Your task to perform on an android device: change alarm snooze length Image 0: 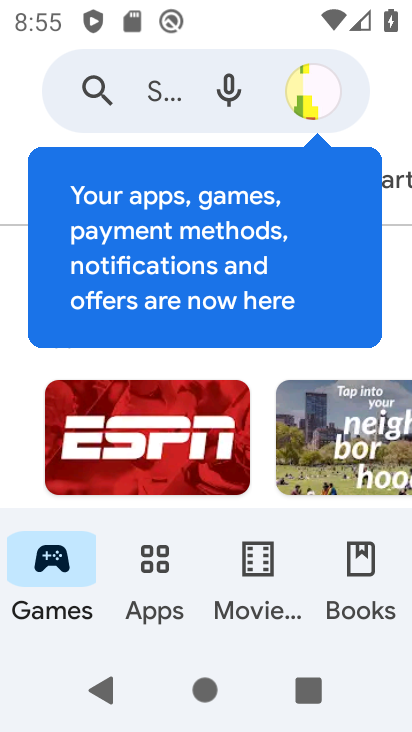
Step 0: press home button
Your task to perform on an android device: change alarm snooze length Image 1: 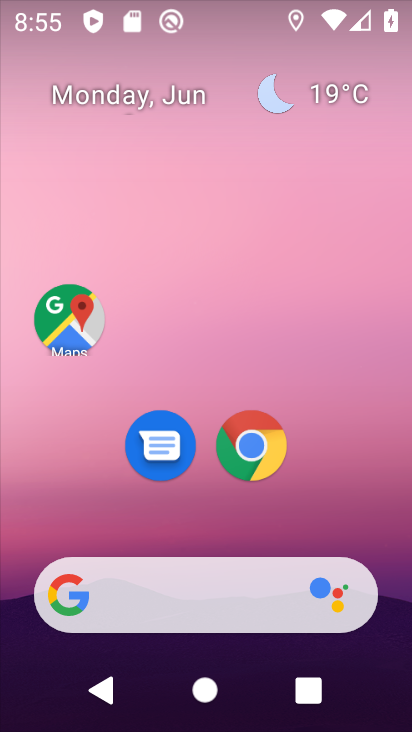
Step 1: drag from (193, 539) to (210, 6)
Your task to perform on an android device: change alarm snooze length Image 2: 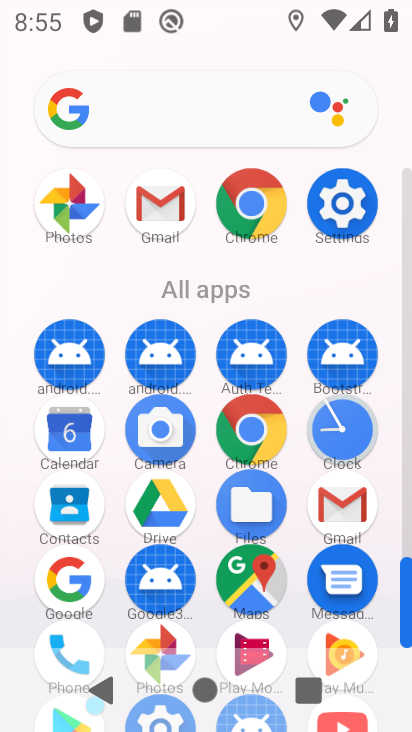
Step 2: click (345, 426)
Your task to perform on an android device: change alarm snooze length Image 3: 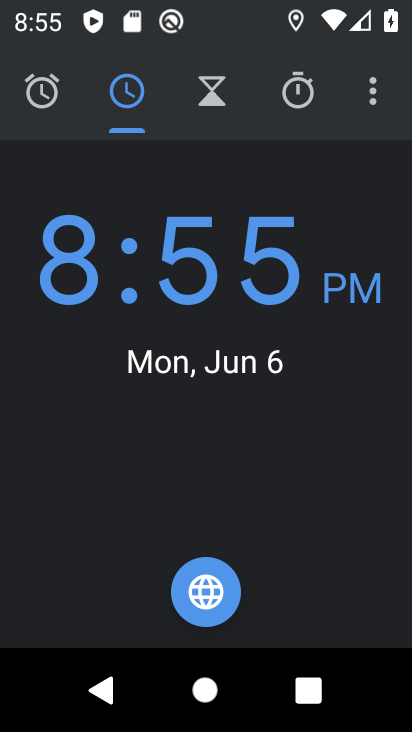
Step 3: click (361, 98)
Your task to perform on an android device: change alarm snooze length Image 4: 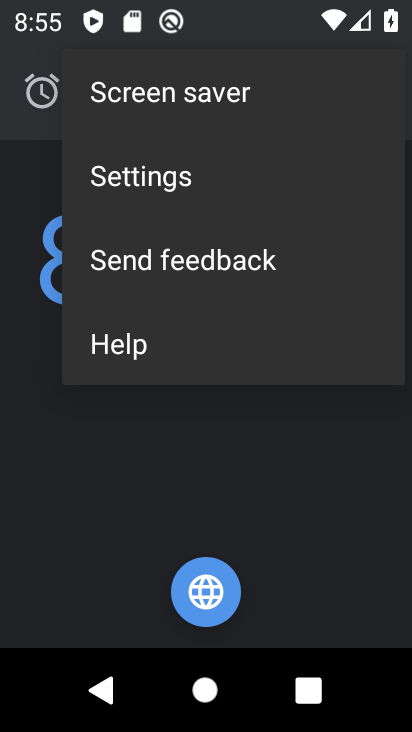
Step 4: click (207, 171)
Your task to perform on an android device: change alarm snooze length Image 5: 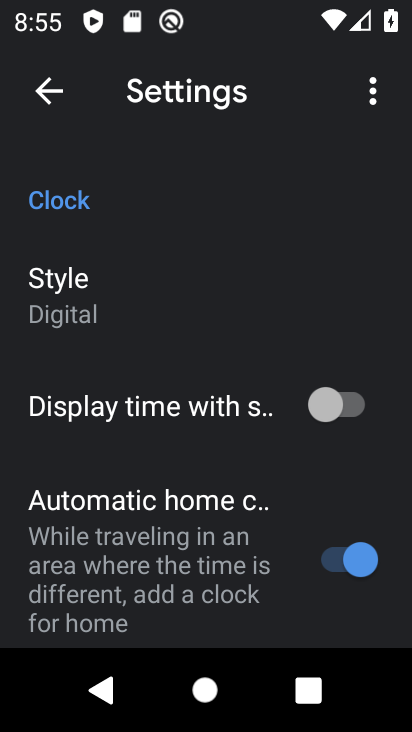
Step 5: drag from (206, 467) to (267, 90)
Your task to perform on an android device: change alarm snooze length Image 6: 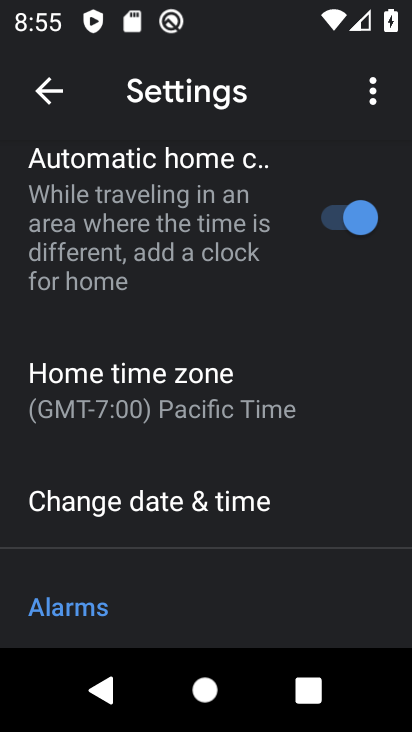
Step 6: drag from (197, 561) to (203, 107)
Your task to perform on an android device: change alarm snooze length Image 7: 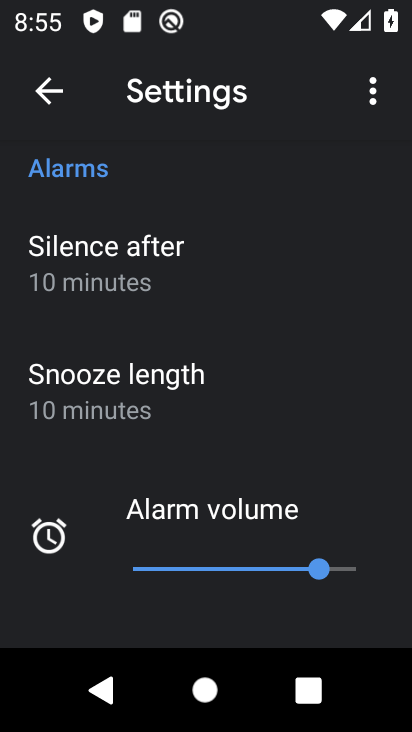
Step 7: click (198, 398)
Your task to perform on an android device: change alarm snooze length Image 8: 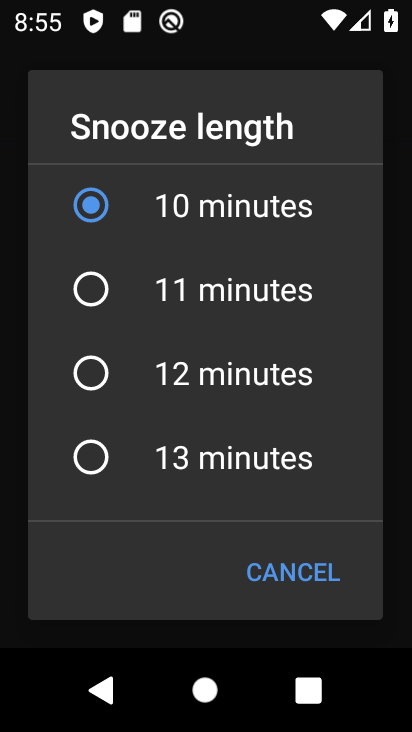
Step 8: click (85, 294)
Your task to perform on an android device: change alarm snooze length Image 9: 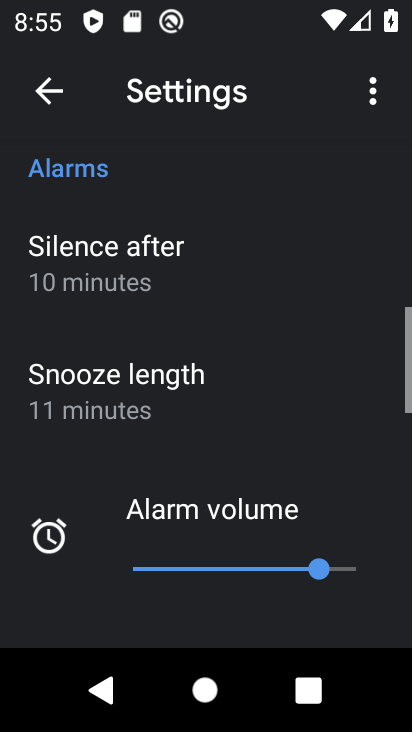
Step 9: task complete